Your task to perform on an android device: toggle notification dots Image 0: 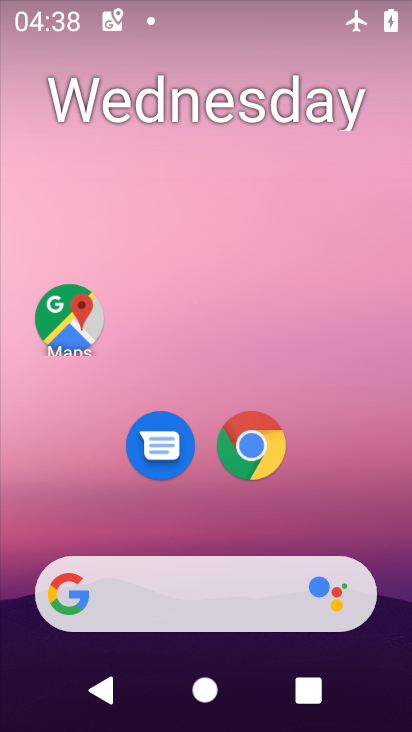
Step 0: drag from (212, 516) to (253, 105)
Your task to perform on an android device: toggle notification dots Image 1: 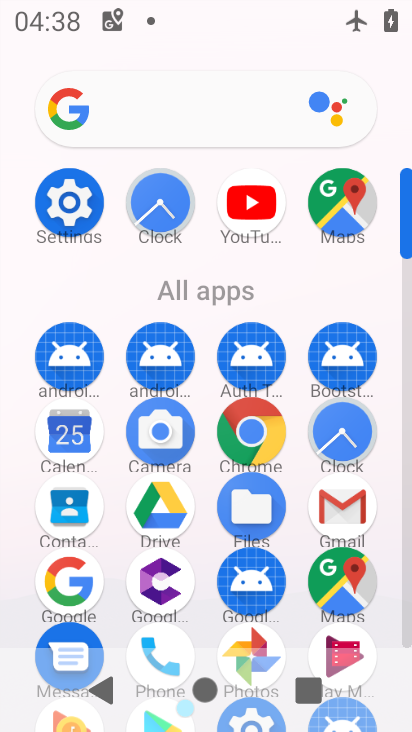
Step 1: click (68, 185)
Your task to perform on an android device: toggle notification dots Image 2: 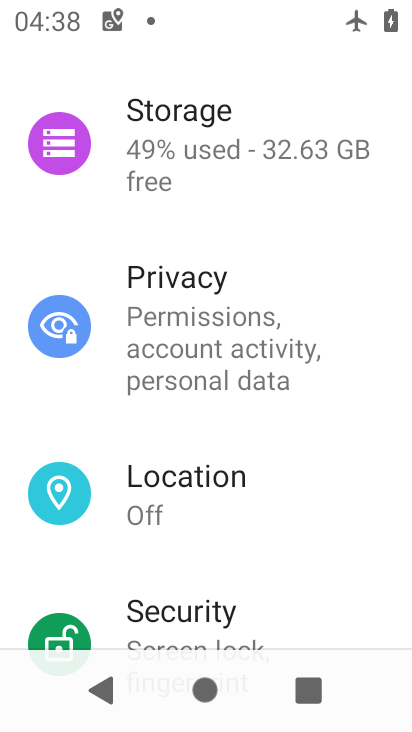
Step 2: drag from (144, 271) to (181, 648)
Your task to perform on an android device: toggle notification dots Image 3: 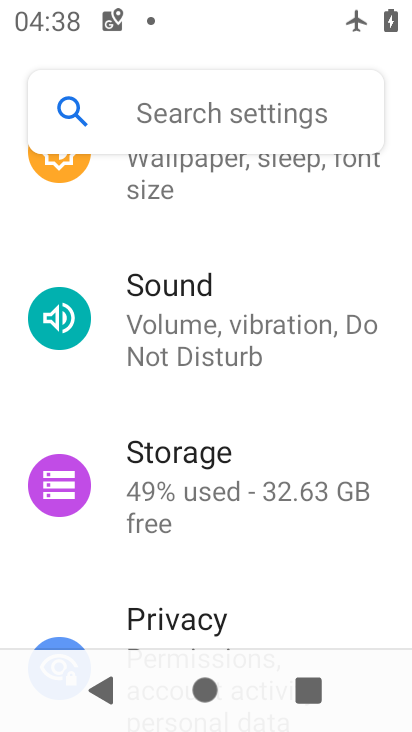
Step 3: drag from (181, 214) to (173, 496)
Your task to perform on an android device: toggle notification dots Image 4: 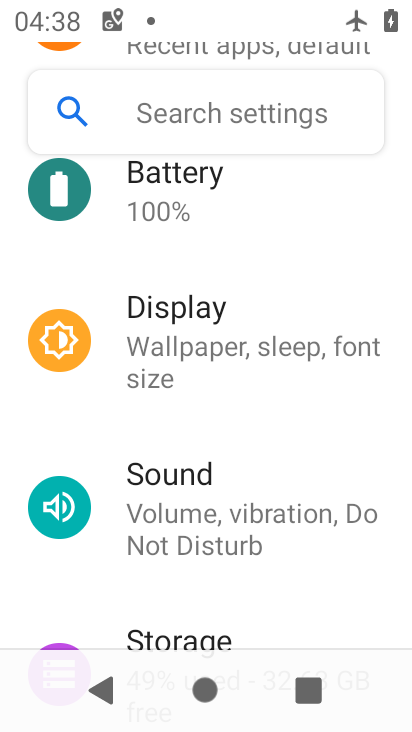
Step 4: drag from (174, 245) to (172, 570)
Your task to perform on an android device: toggle notification dots Image 5: 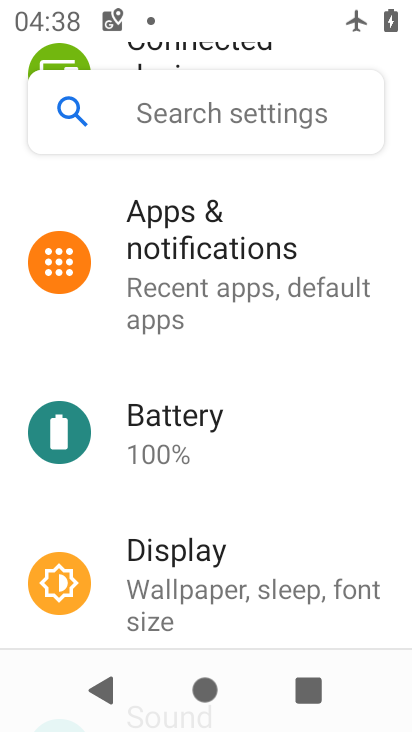
Step 5: click (192, 264)
Your task to perform on an android device: toggle notification dots Image 6: 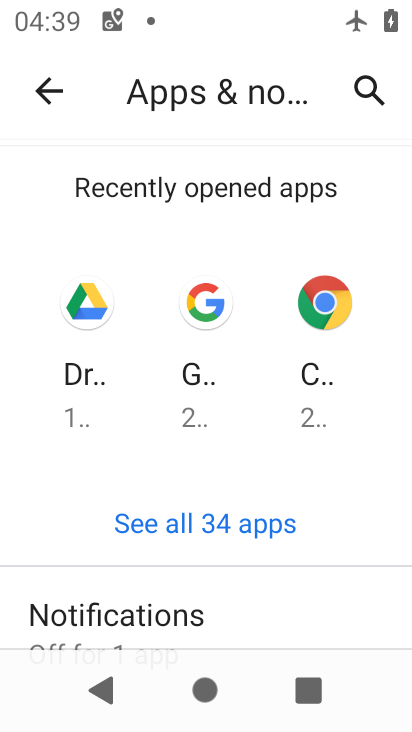
Step 6: drag from (153, 640) to (214, 150)
Your task to perform on an android device: toggle notification dots Image 7: 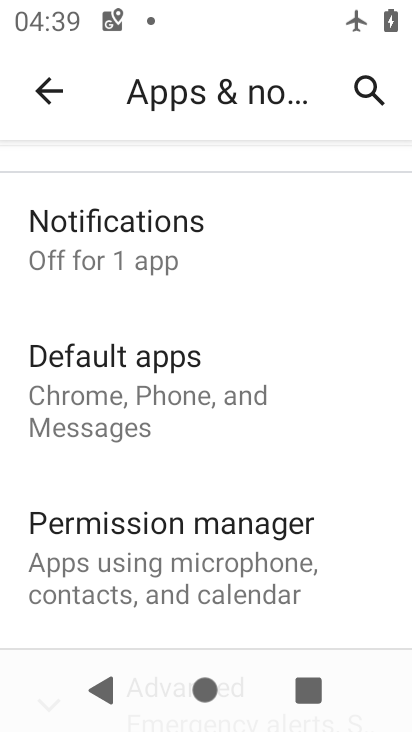
Step 7: click (201, 240)
Your task to perform on an android device: toggle notification dots Image 8: 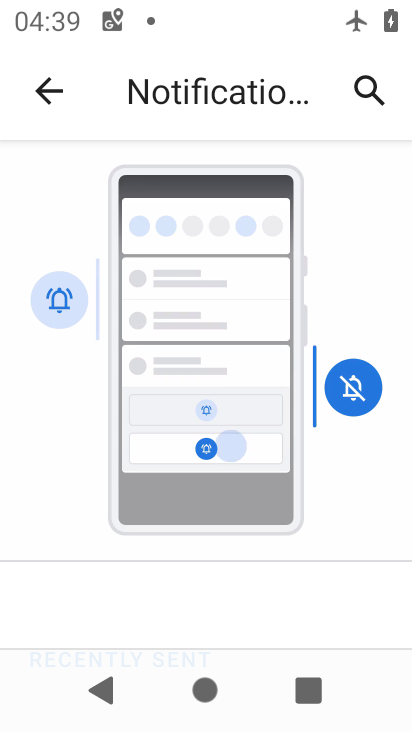
Step 8: drag from (114, 608) to (153, 177)
Your task to perform on an android device: toggle notification dots Image 9: 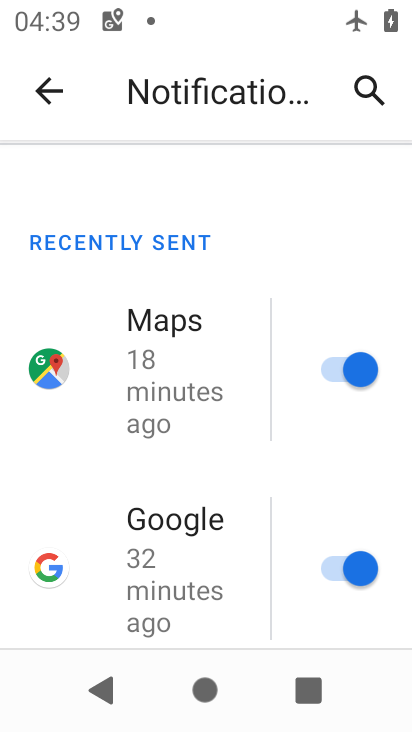
Step 9: drag from (133, 636) to (228, 158)
Your task to perform on an android device: toggle notification dots Image 10: 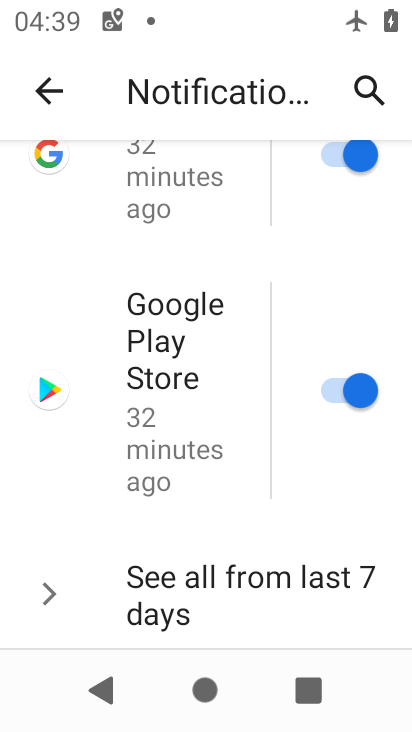
Step 10: drag from (128, 596) to (181, 304)
Your task to perform on an android device: toggle notification dots Image 11: 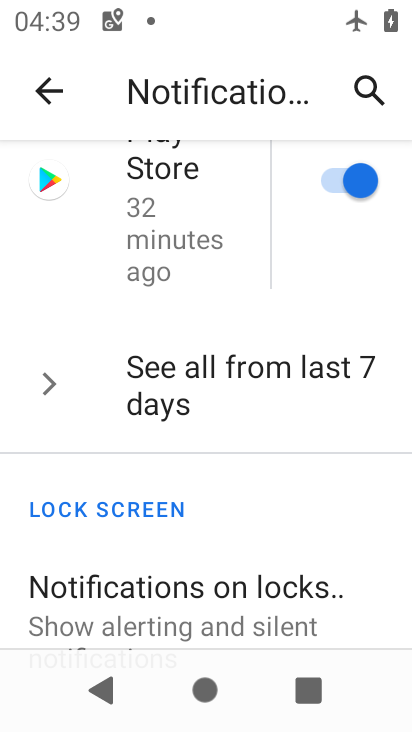
Step 11: drag from (132, 589) to (192, 210)
Your task to perform on an android device: toggle notification dots Image 12: 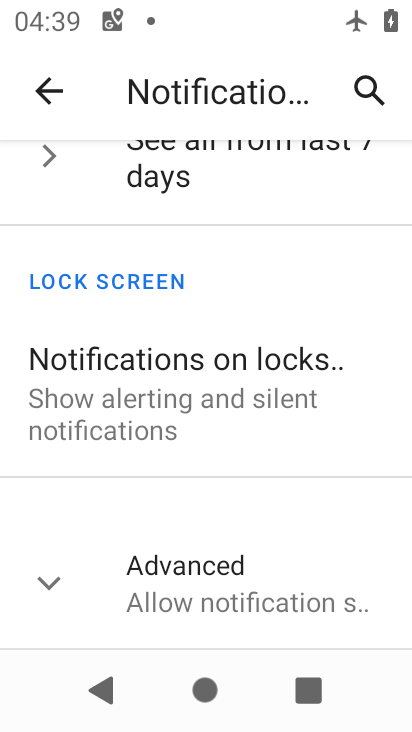
Step 12: click (157, 578)
Your task to perform on an android device: toggle notification dots Image 13: 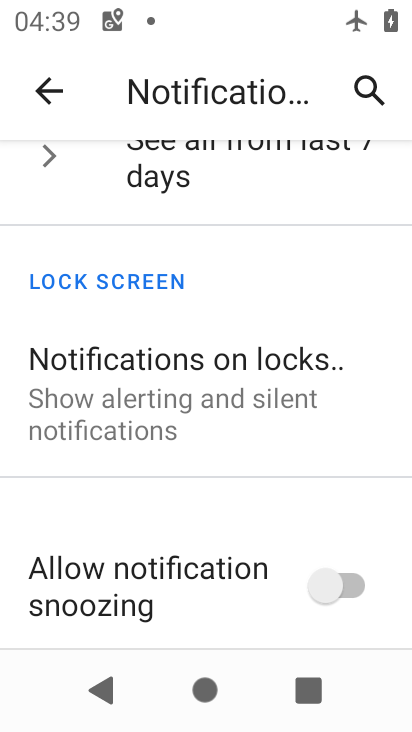
Step 13: drag from (142, 583) to (283, 66)
Your task to perform on an android device: toggle notification dots Image 14: 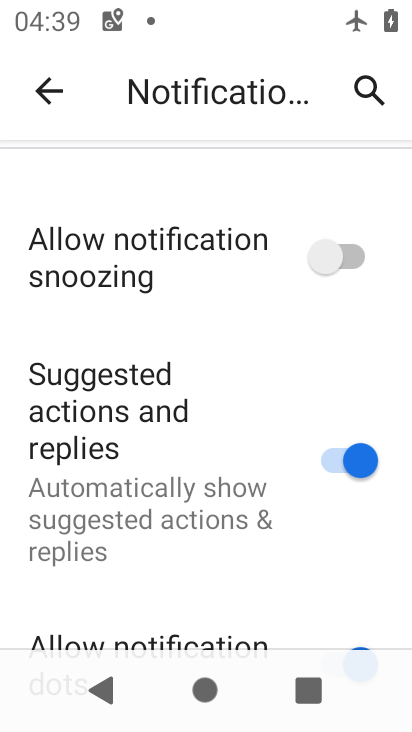
Step 14: drag from (163, 532) to (221, 117)
Your task to perform on an android device: toggle notification dots Image 15: 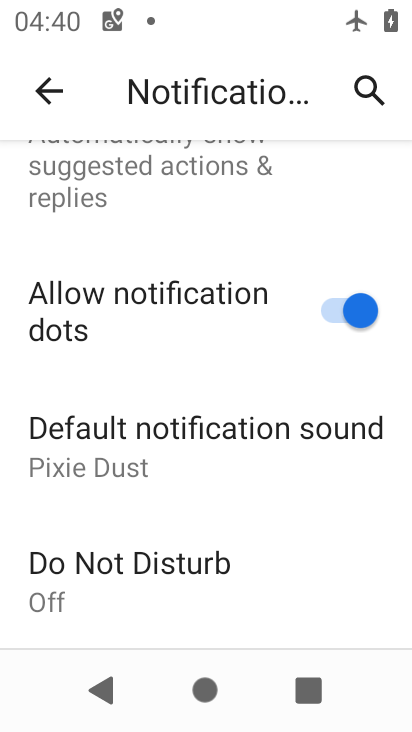
Step 15: click (357, 302)
Your task to perform on an android device: toggle notification dots Image 16: 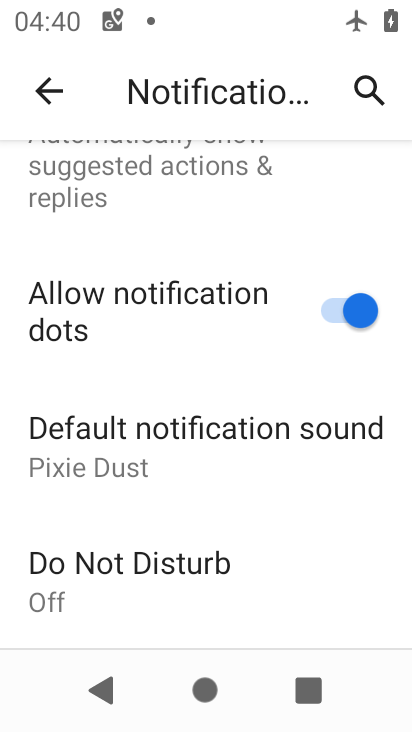
Step 16: click (357, 302)
Your task to perform on an android device: toggle notification dots Image 17: 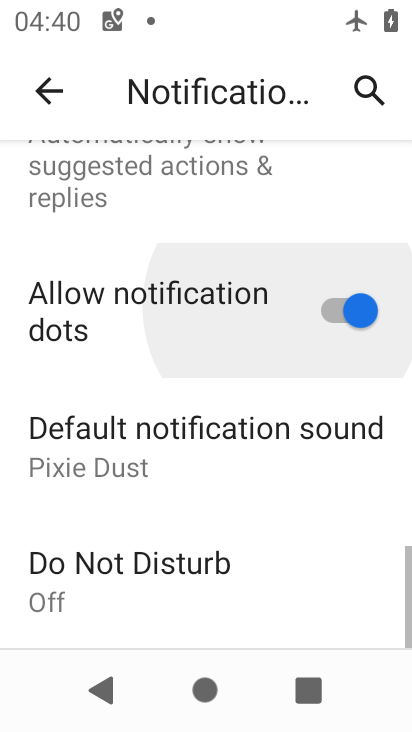
Step 17: click (357, 302)
Your task to perform on an android device: toggle notification dots Image 18: 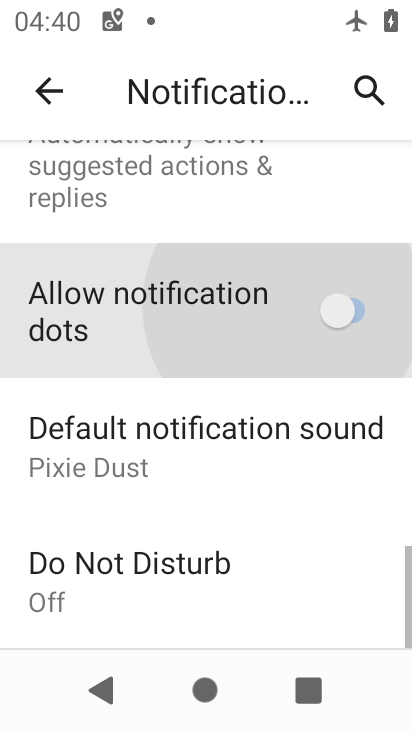
Step 18: click (357, 302)
Your task to perform on an android device: toggle notification dots Image 19: 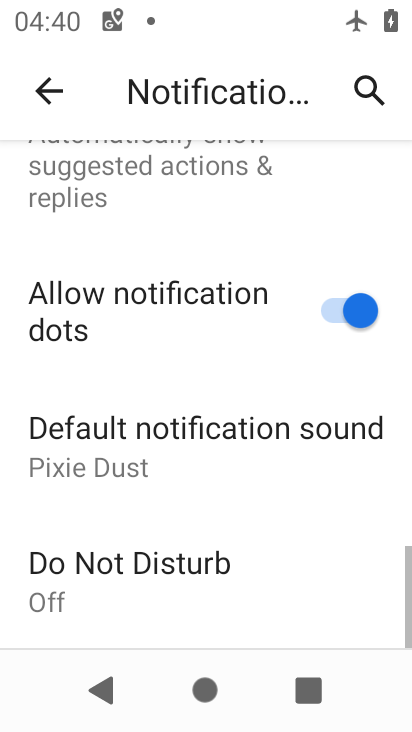
Step 19: click (357, 302)
Your task to perform on an android device: toggle notification dots Image 20: 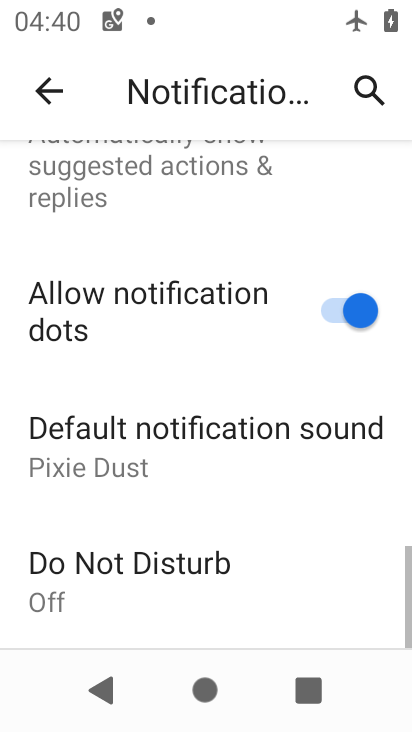
Step 20: click (357, 302)
Your task to perform on an android device: toggle notification dots Image 21: 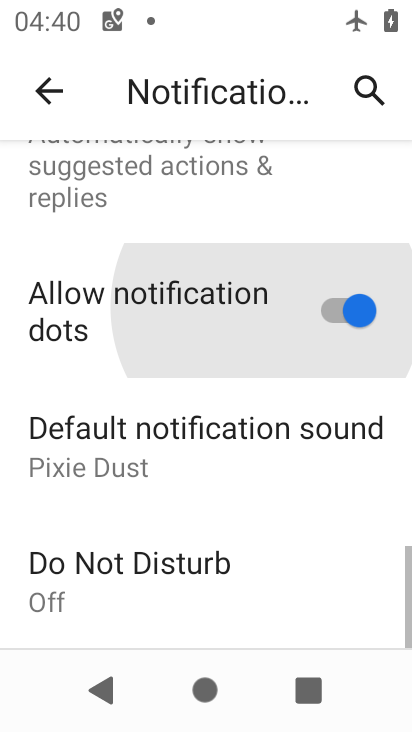
Step 21: click (357, 302)
Your task to perform on an android device: toggle notification dots Image 22: 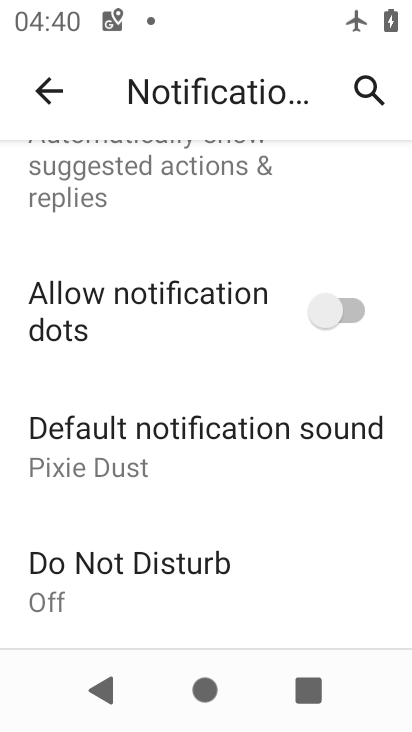
Step 22: task complete